Your task to perform on an android device: What is the news today? Image 0: 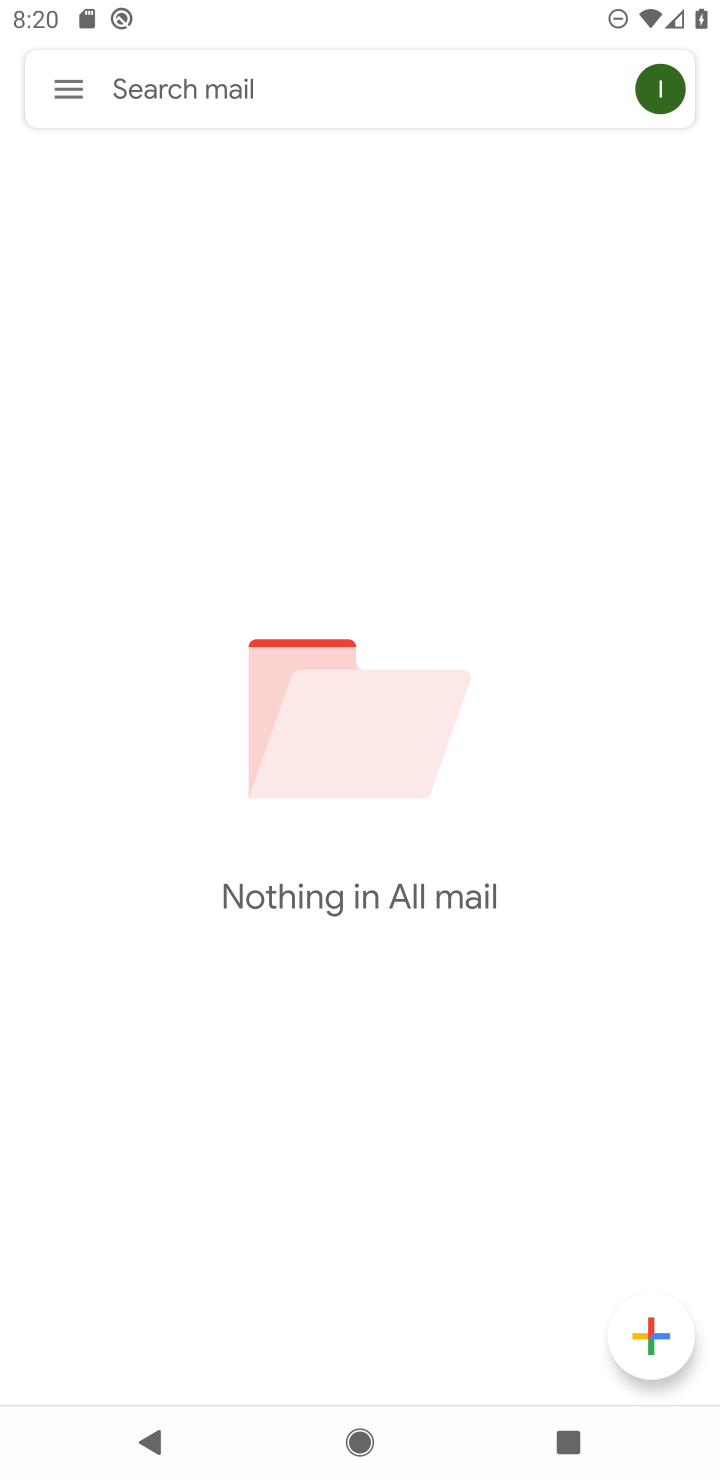
Step 0: press home button
Your task to perform on an android device: What is the news today? Image 1: 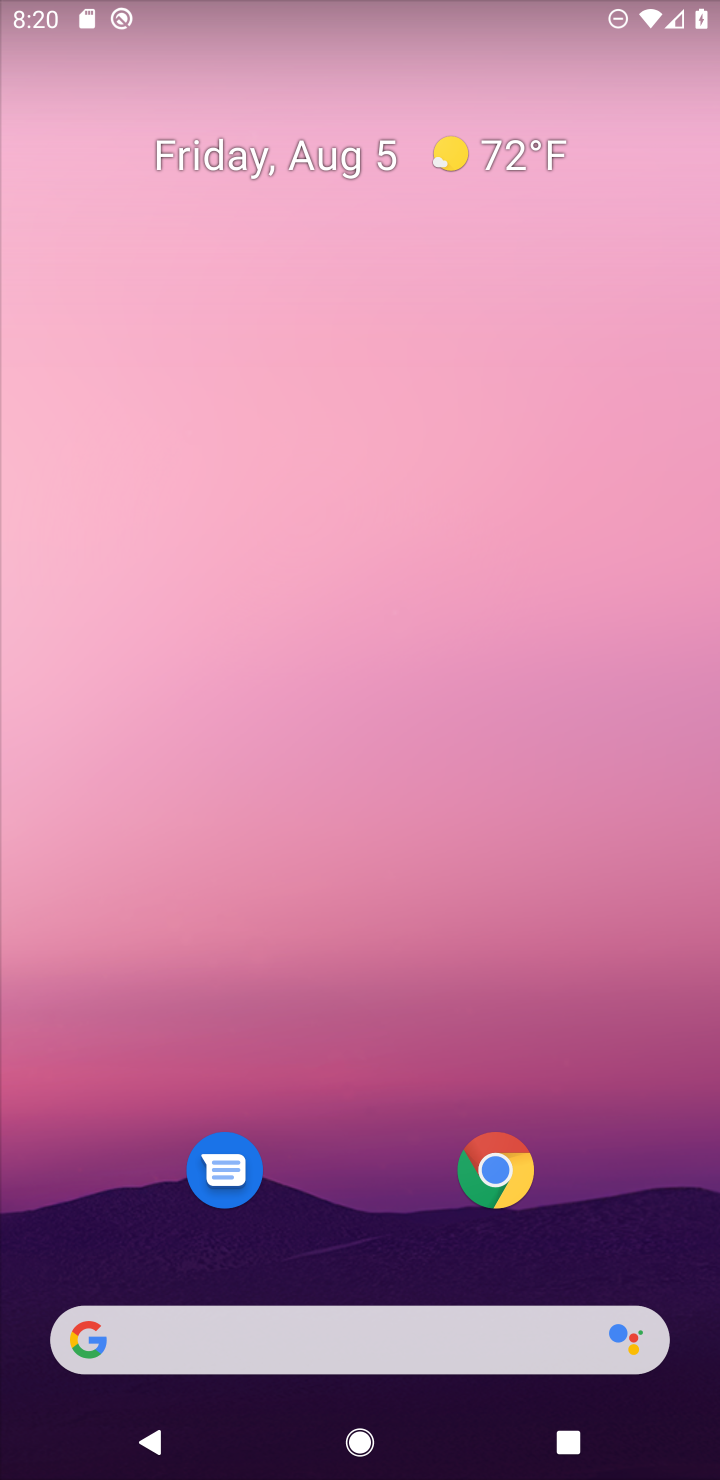
Step 1: task complete